Your task to perform on an android device: open device folders in google photos Image 0: 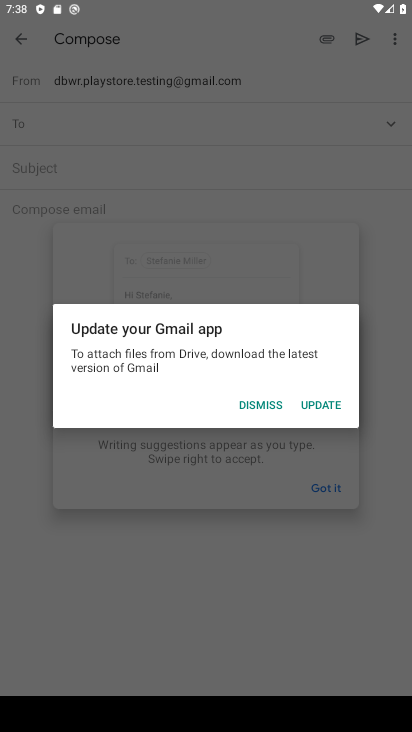
Step 0: press home button
Your task to perform on an android device: open device folders in google photos Image 1: 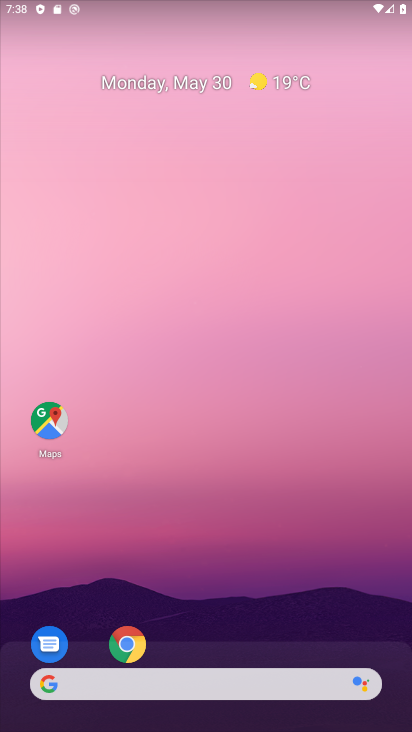
Step 1: drag from (204, 641) to (297, 289)
Your task to perform on an android device: open device folders in google photos Image 2: 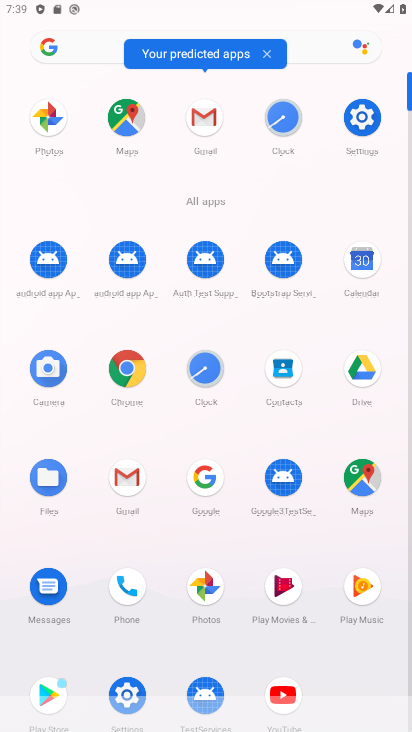
Step 2: click (196, 591)
Your task to perform on an android device: open device folders in google photos Image 3: 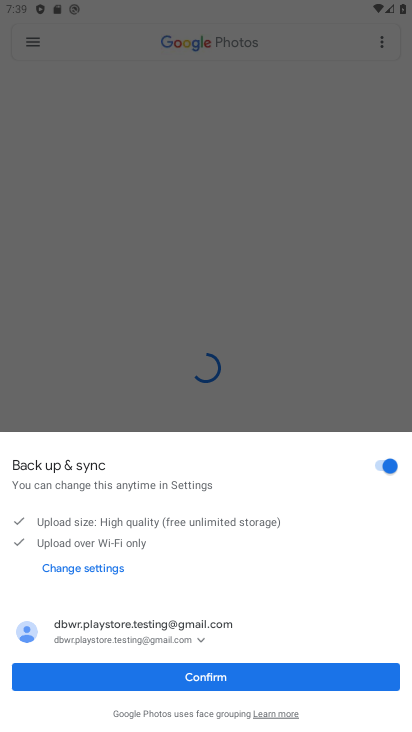
Step 3: click (145, 684)
Your task to perform on an android device: open device folders in google photos Image 4: 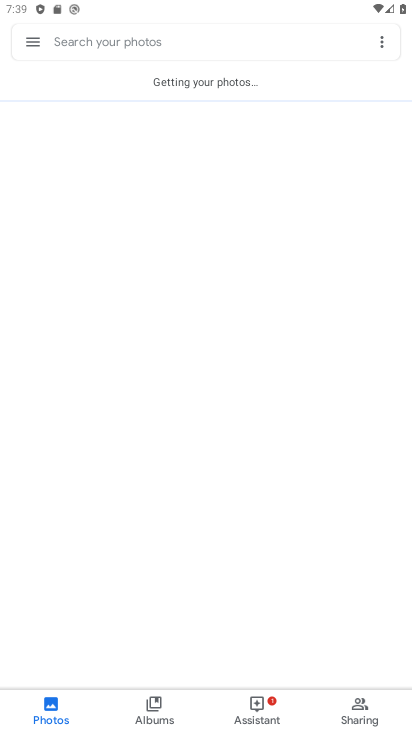
Step 4: click (32, 42)
Your task to perform on an android device: open device folders in google photos Image 5: 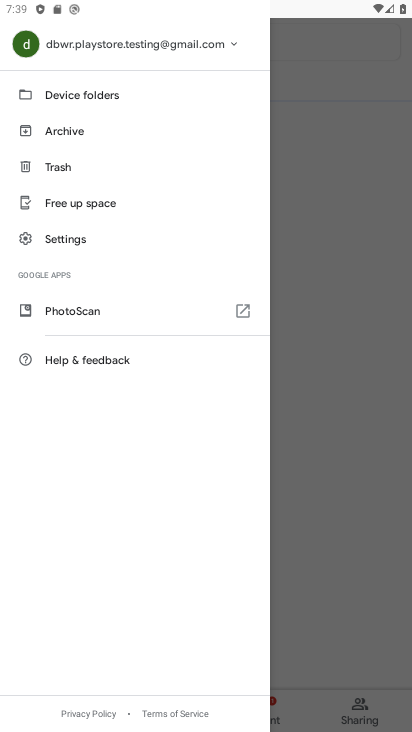
Step 5: click (83, 97)
Your task to perform on an android device: open device folders in google photos Image 6: 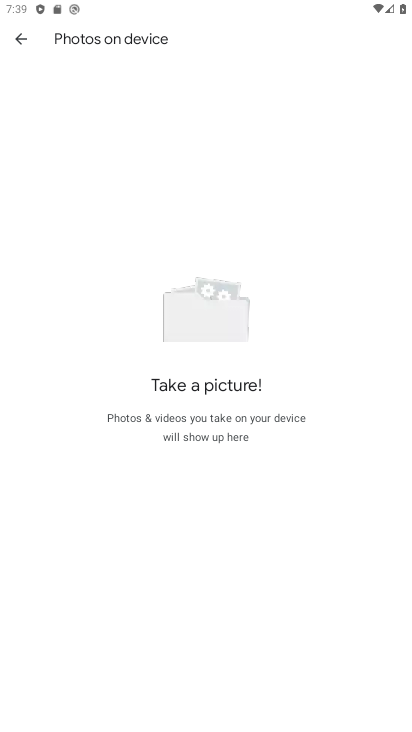
Step 6: task complete